Your task to perform on an android device: turn off airplane mode Image 0: 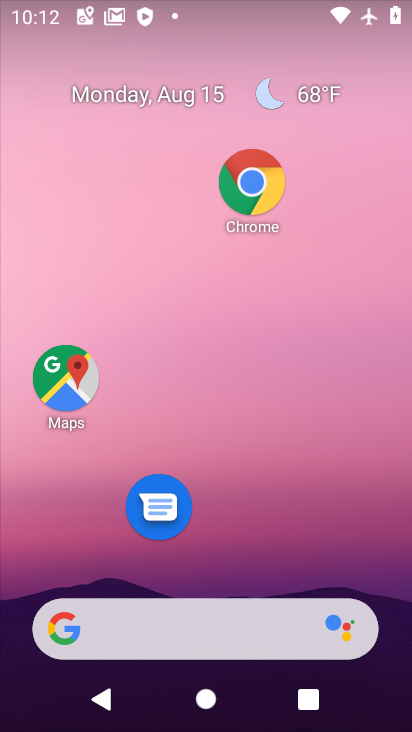
Step 0: drag from (281, 586) to (41, 7)
Your task to perform on an android device: turn off airplane mode Image 1: 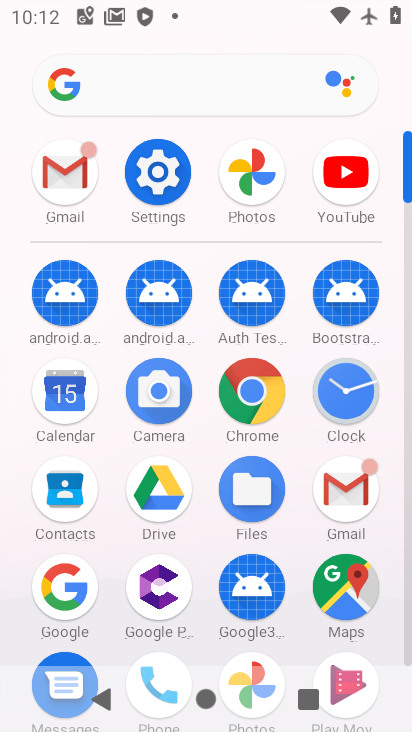
Step 1: click (135, 193)
Your task to perform on an android device: turn off airplane mode Image 2: 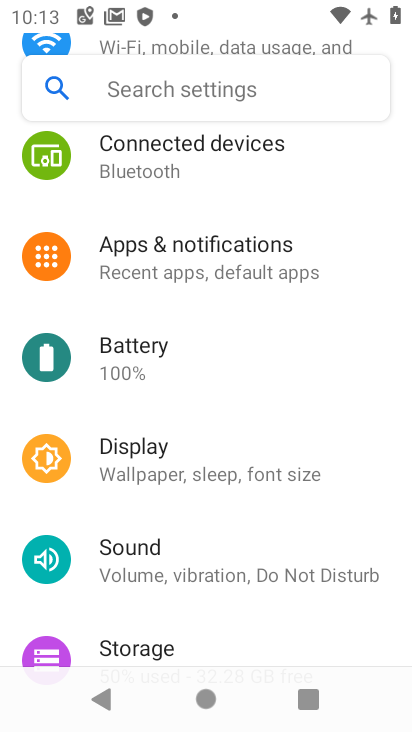
Step 2: task complete